Your task to perform on an android device: find which apps use the phone's location Image 0: 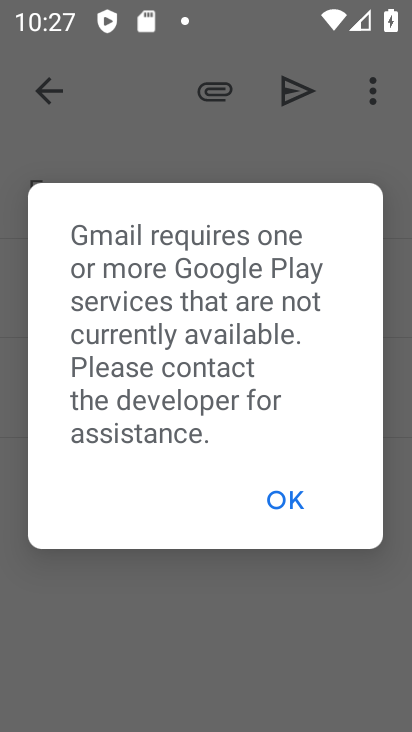
Step 0: press home button
Your task to perform on an android device: find which apps use the phone's location Image 1: 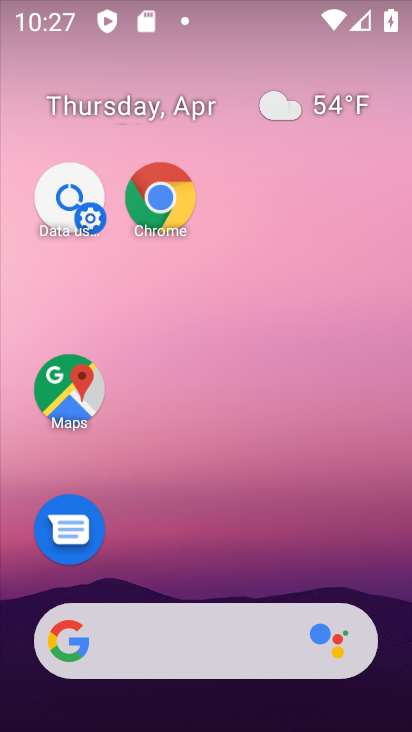
Step 1: drag from (228, 480) to (239, 3)
Your task to perform on an android device: find which apps use the phone's location Image 2: 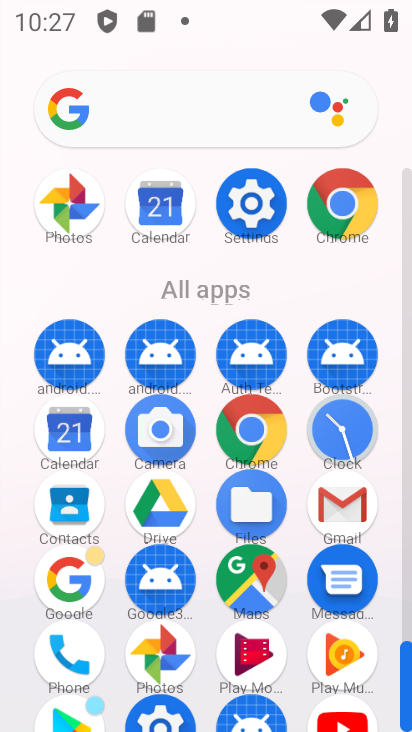
Step 2: click (241, 225)
Your task to perform on an android device: find which apps use the phone's location Image 3: 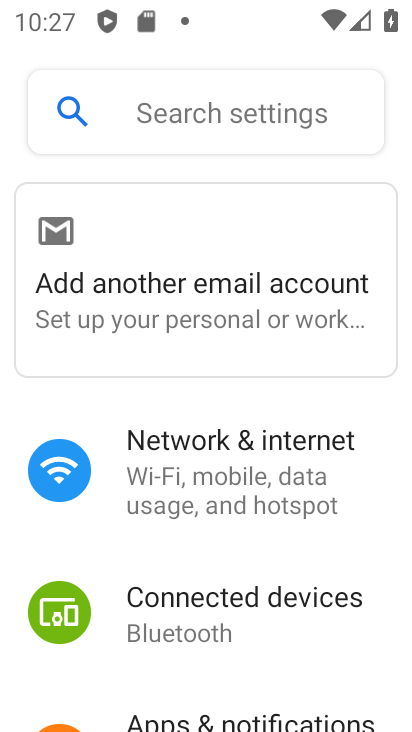
Step 3: drag from (272, 556) to (257, 136)
Your task to perform on an android device: find which apps use the phone's location Image 4: 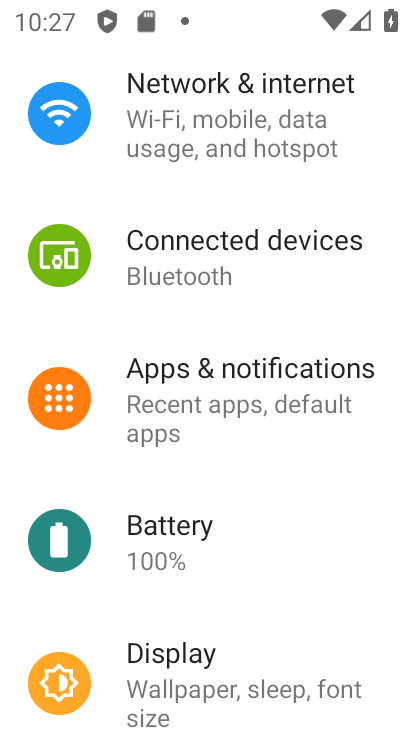
Step 4: drag from (282, 663) to (229, 203)
Your task to perform on an android device: find which apps use the phone's location Image 5: 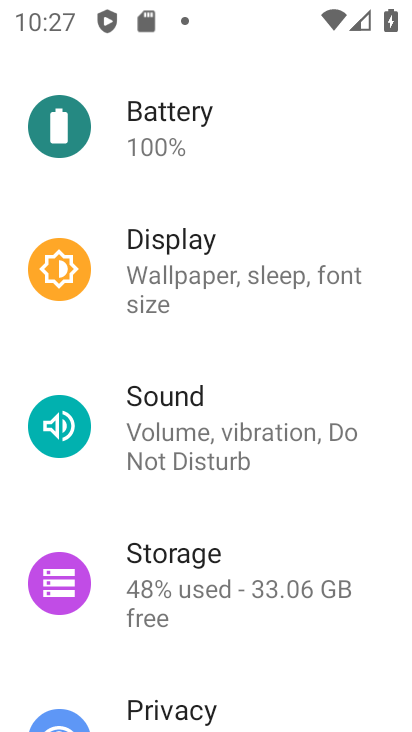
Step 5: drag from (243, 590) to (258, 90)
Your task to perform on an android device: find which apps use the phone's location Image 6: 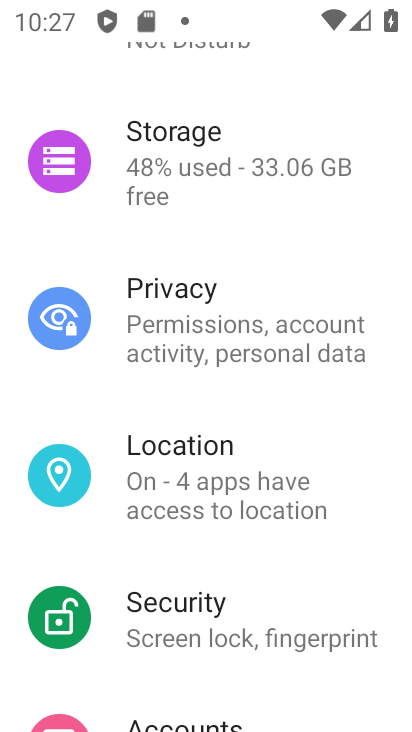
Step 6: click (259, 481)
Your task to perform on an android device: find which apps use the phone's location Image 7: 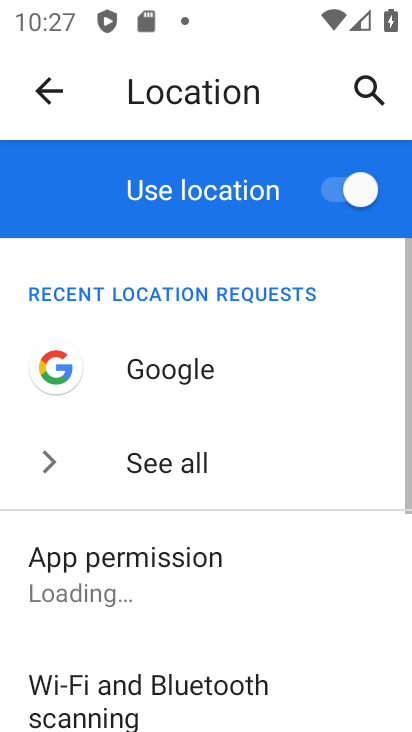
Step 7: drag from (270, 471) to (265, 160)
Your task to perform on an android device: find which apps use the phone's location Image 8: 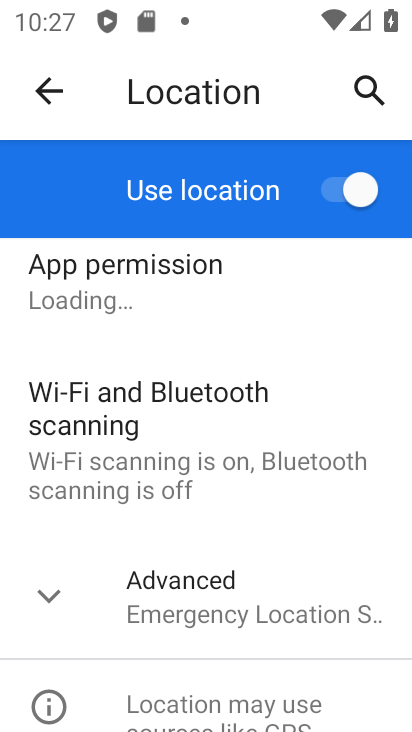
Step 8: click (152, 295)
Your task to perform on an android device: find which apps use the phone's location Image 9: 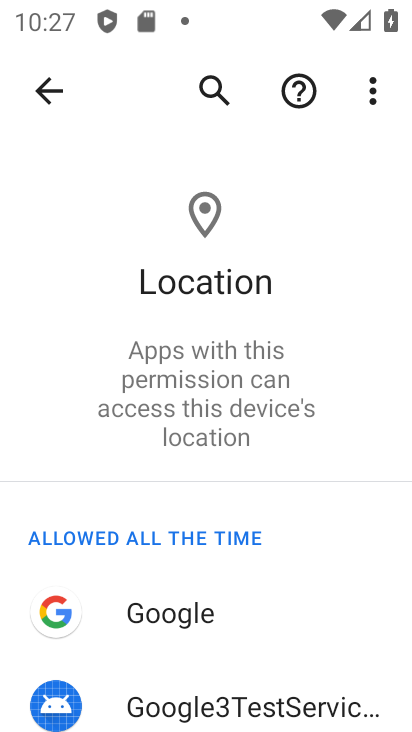
Step 9: task complete